Your task to perform on an android device: Show me popular games on the Play Store Image 0: 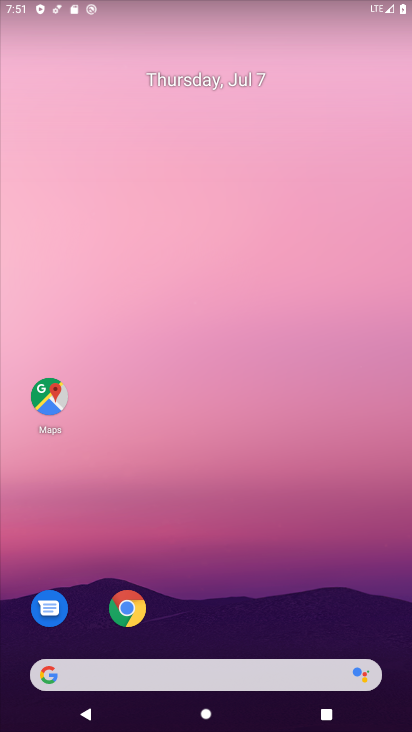
Step 0: drag from (400, 647) to (342, 205)
Your task to perform on an android device: Show me popular games on the Play Store Image 1: 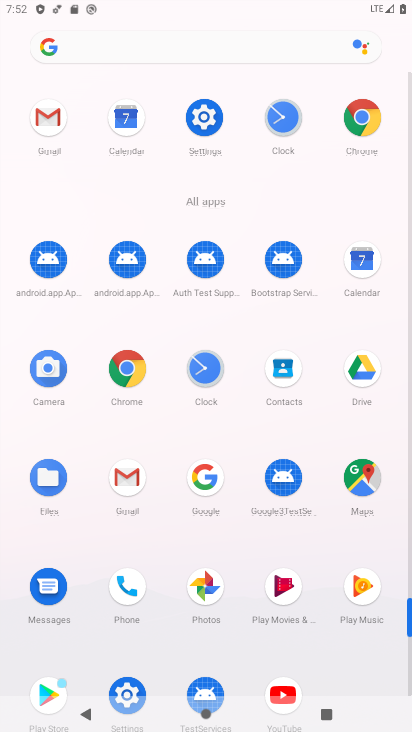
Step 1: click (409, 676)
Your task to perform on an android device: Show me popular games on the Play Store Image 2: 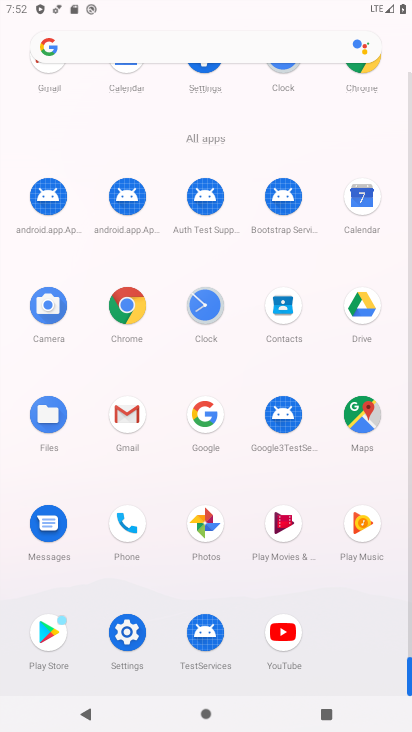
Step 2: click (49, 630)
Your task to perform on an android device: Show me popular games on the Play Store Image 3: 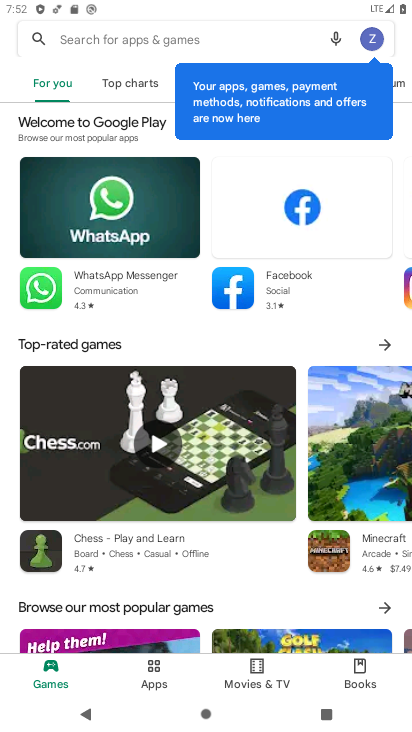
Step 3: click (390, 607)
Your task to perform on an android device: Show me popular games on the Play Store Image 4: 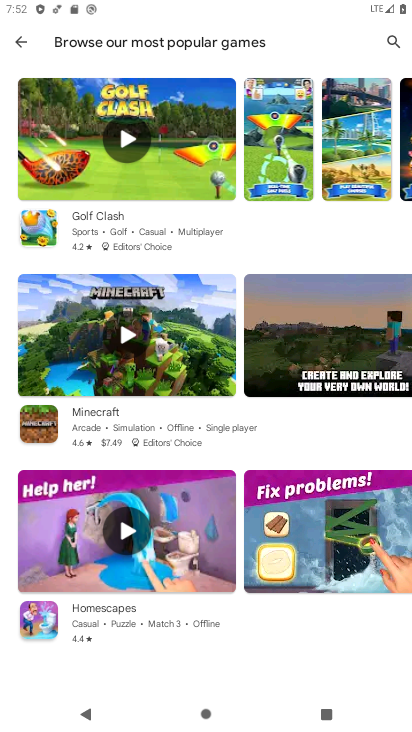
Step 4: drag from (243, 410) to (241, 240)
Your task to perform on an android device: Show me popular games on the Play Store Image 5: 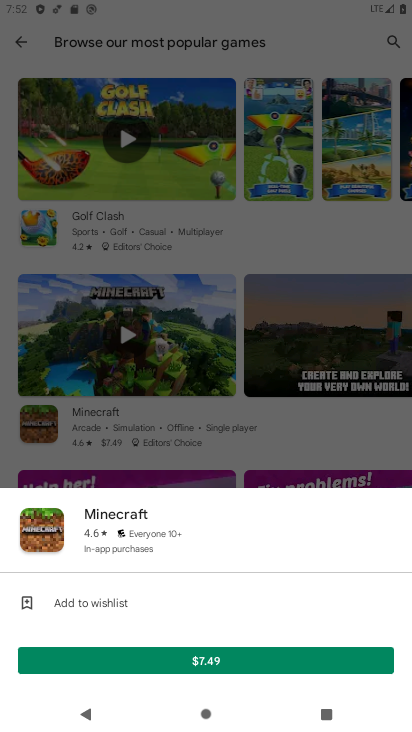
Step 5: click (244, 401)
Your task to perform on an android device: Show me popular games on the Play Store Image 6: 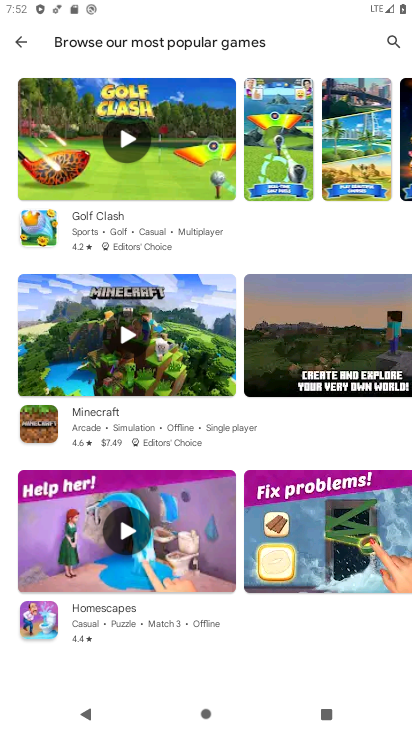
Step 6: task complete